Your task to perform on an android device: Open wifi settings Image 0: 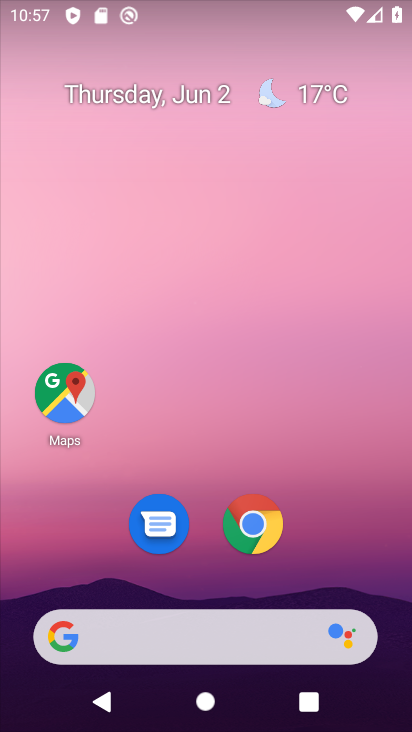
Step 0: drag from (194, 564) to (150, 0)
Your task to perform on an android device: Open wifi settings Image 1: 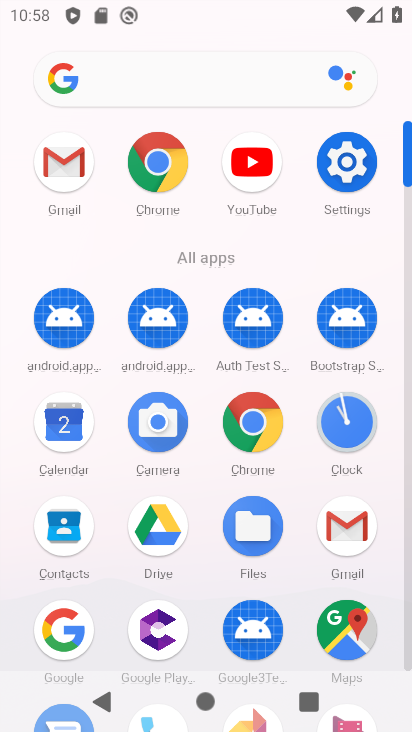
Step 1: click (350, 156)
Your task to perform on an android device: Open wifi settings Image 2: 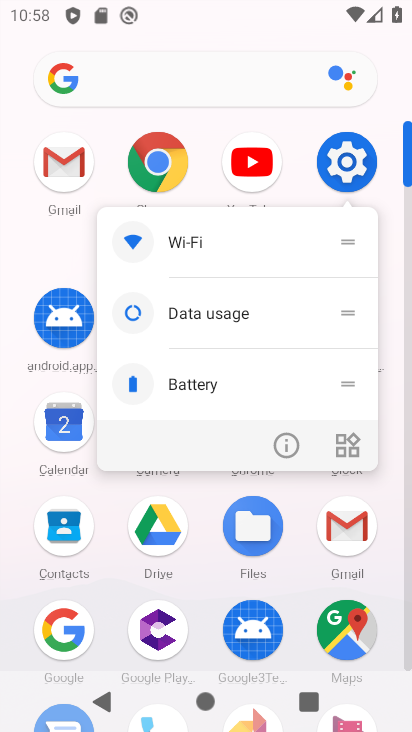
Step 2: click (350, 156)
Your task to perform on an android device: Open wifi settings Image 3: 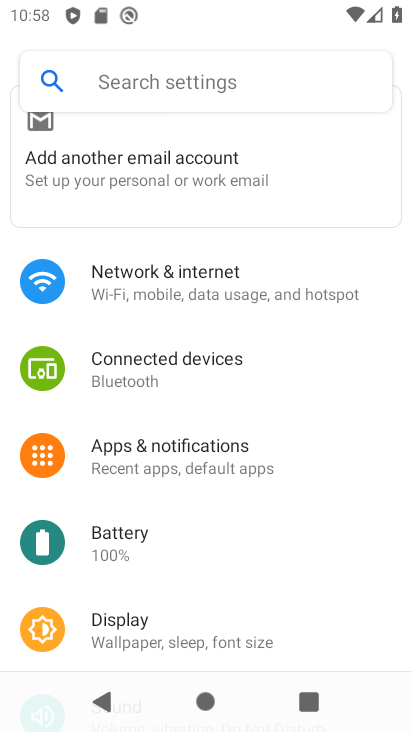
Step 3: click (251, 285)
Your task to perform on an android device: Open wifi settings Image 4: 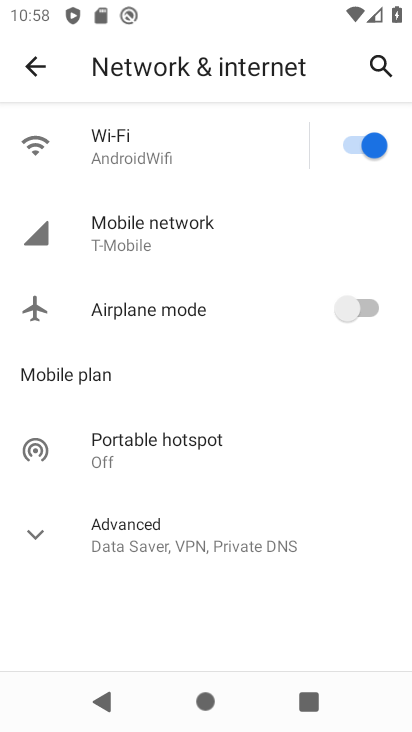
Step 4: click (158, 133)
Your task to perform on an android device: Open wifi settings Image 5: 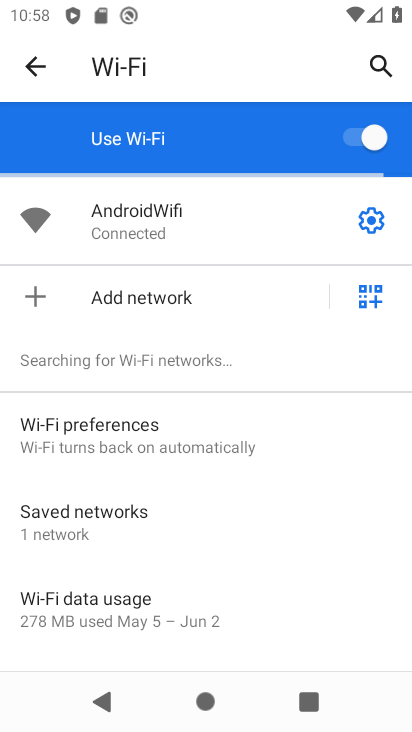
Step 5: task complete